Your task to perform on an android device: turn off improve location accuracy Image 0: 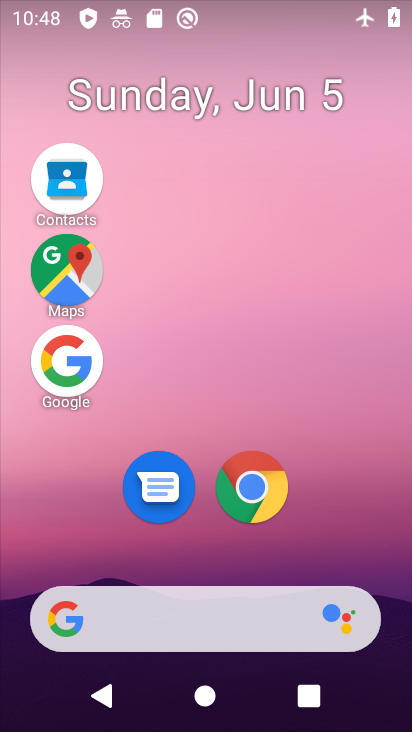
Step 0: drag from (186, 577) to (250, 80)
Your task to perform on an android device: turn off improve location accuracy Image 1: 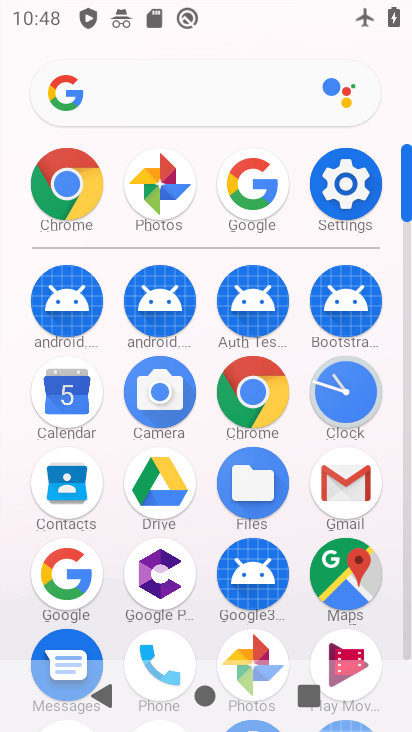
Step 1: click (345, 186)
Your task to perform on an android device: turn off improve location accuracy Image 2: 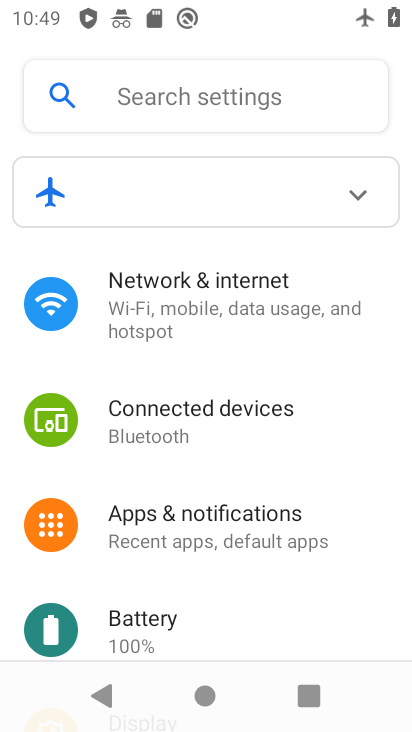
Step 2: drag from (241, 491) to (250, 162)
Your task to perform on an android device: turn off improve location accuracy Image 3: 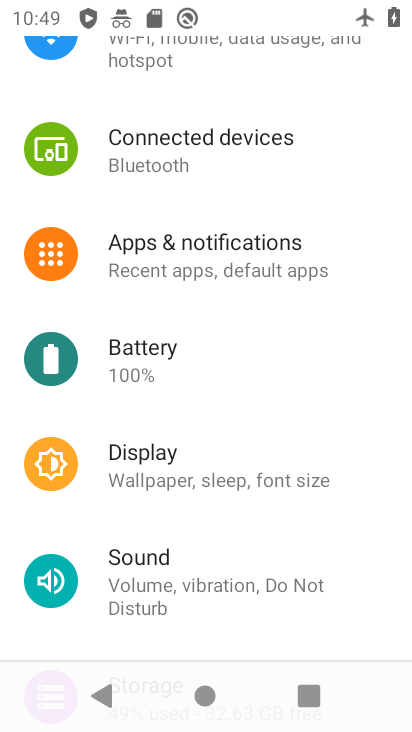
Step 3: drag from (227, 596) to (277, 261)
Your task to perform on an android device: turn off improve location accuracy Image 4: 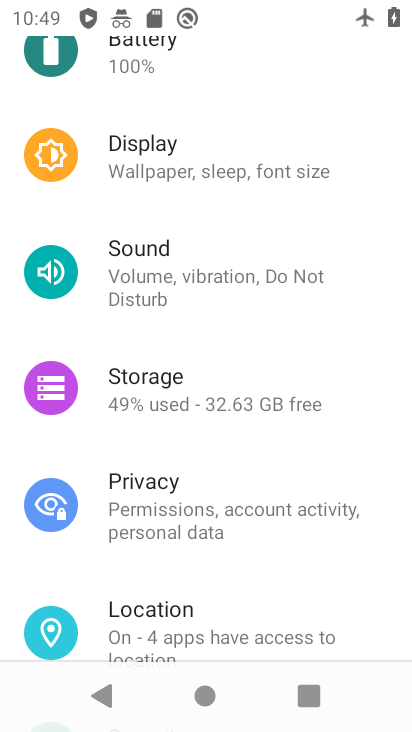
Step 4: drag from (230, 597) to (269, 389)
Your task to perform on an android device: turn off improve location accuracy Image 5: 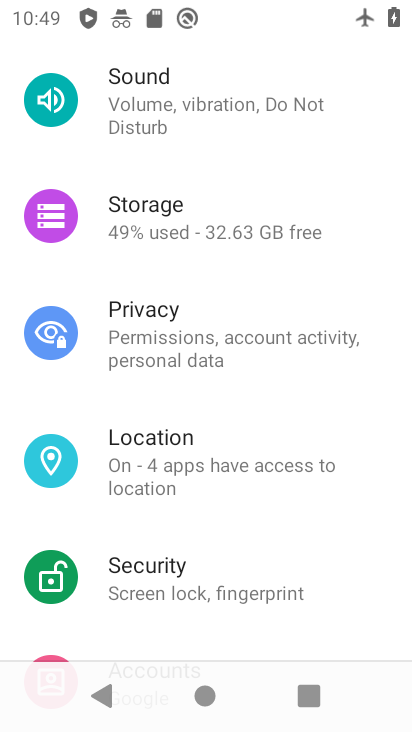
Step 5: click (219, 483)
Your task to perform on an android device: turn off improve location accuracy Image 6: 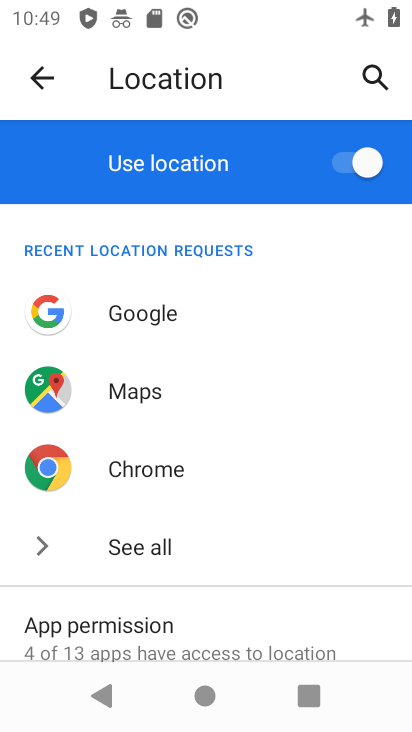
Step 6: drag from (234, 582) to (255, 149)
Your task to perform on an android device: turn off improve location accuracy Image 7: 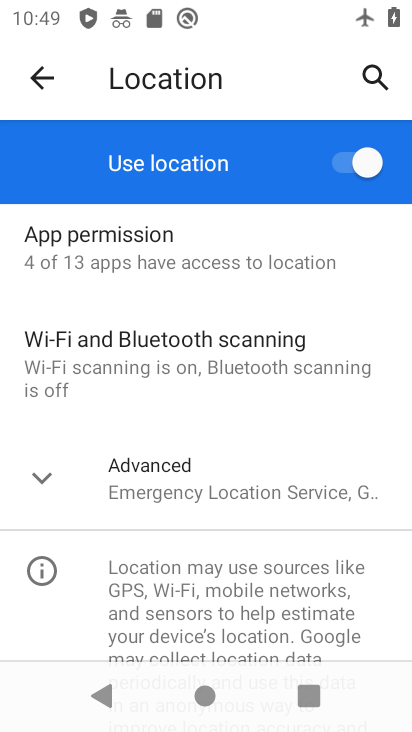
Step 7: click (215, 489)
Your task to perform on an android device: turn off improve location accuracy Image 8: 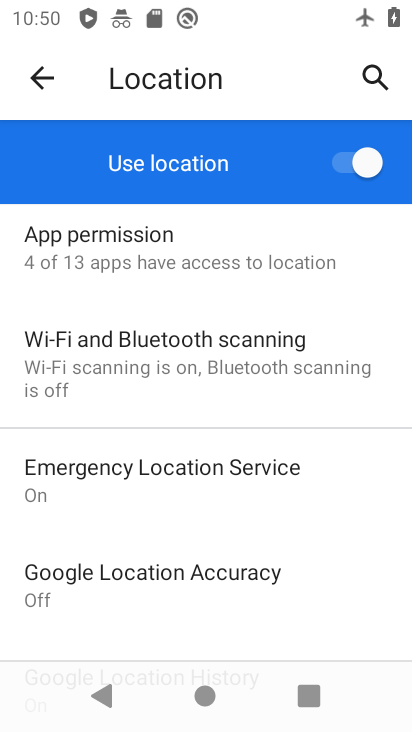
Step 8: click (247, 577)
Your task to perform on an android device: turn off improve location accuracy Image 9: 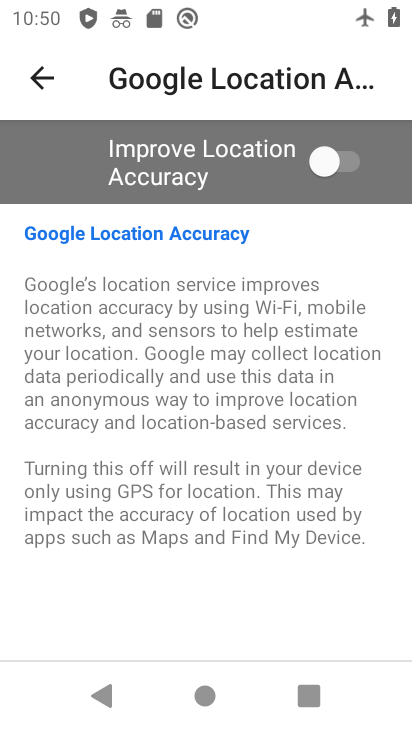
Step 9: task complete